Your task to perform on an android device: Turn off the flashlight Image 0: 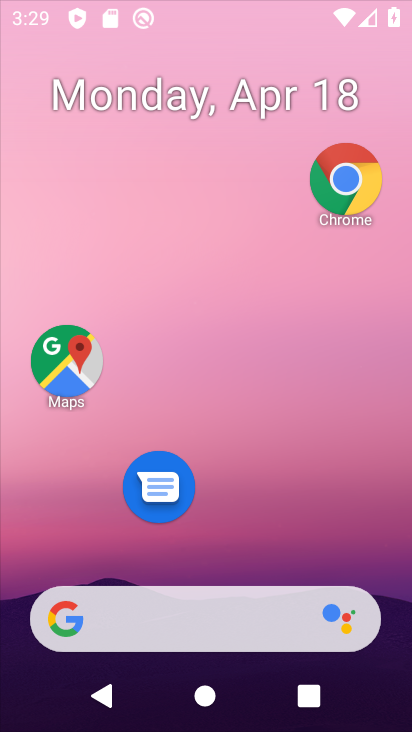
Step 0: drag from (194, 548) to (351, 117)
Your task to perform on an android device: Turn off the flashlight Image 1: 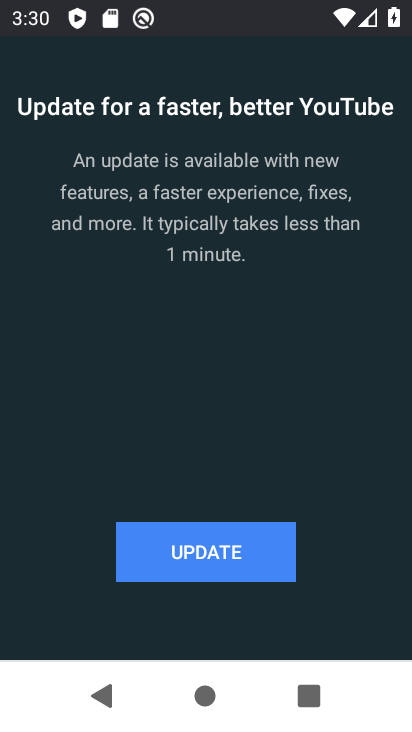
Step 1: task complete